Your task to perform on an android device: Open notification settings Image 0: 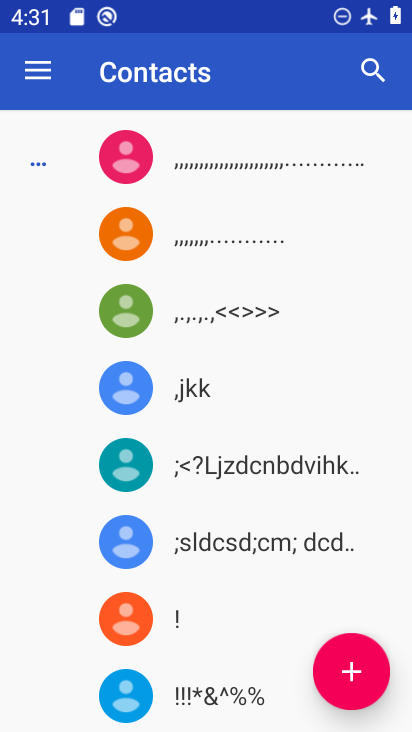
Step 0: press home button
Your task to perform on an android device: Open notification settings Image 1: 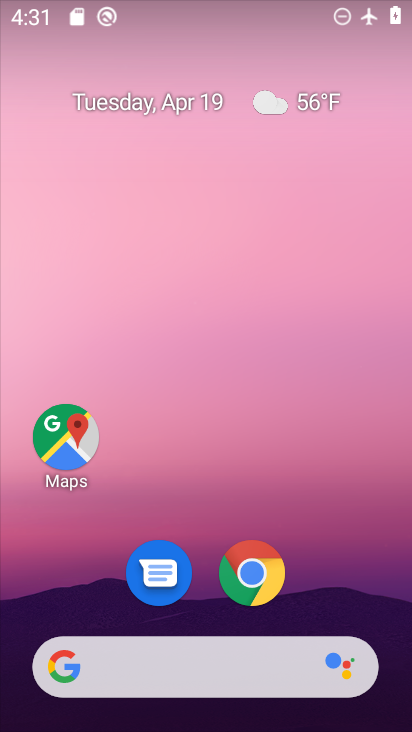
Step 1: drag from (348, 593) to (349, 4)
Your task to perform on an android device: Open notification settings Image 2: 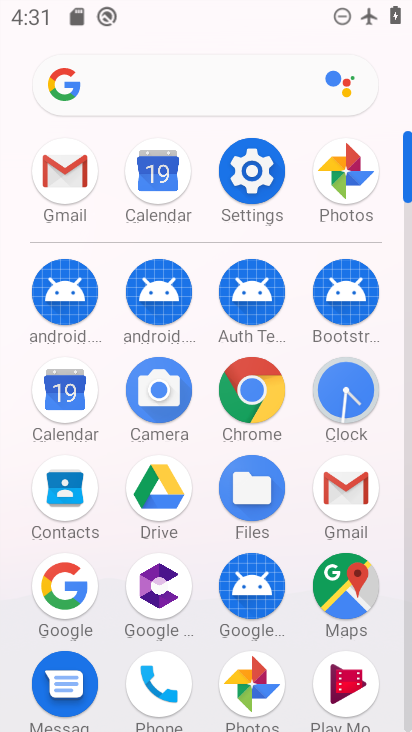
Step 2: click (248, 183)
Your task to perform on an android device: Open notification settings Image 3: 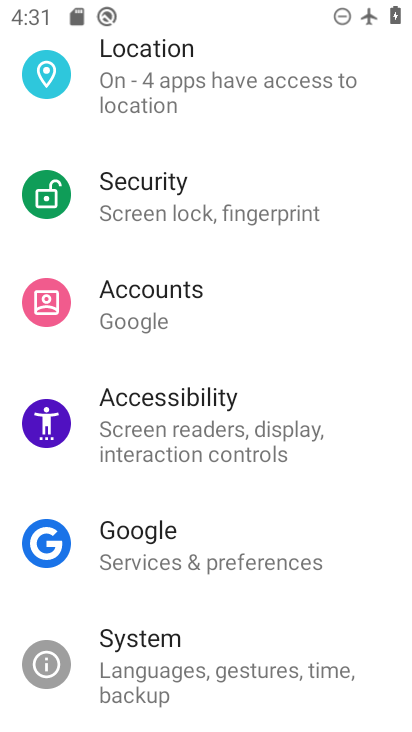
Step 3: drag from (279, 162) to (261, 531)
Your task to perform on an android device: Open notification settings Image 4: 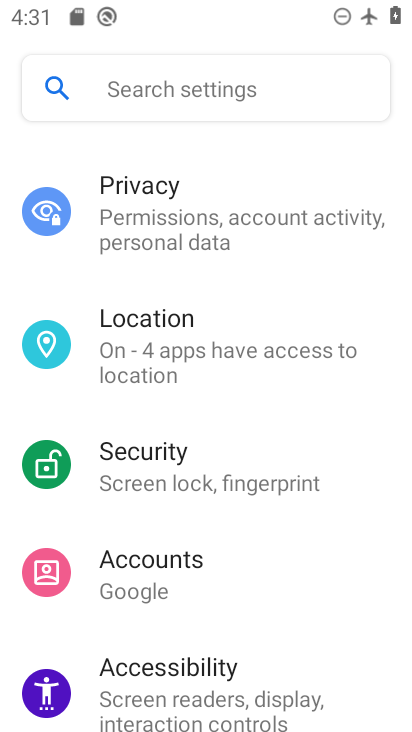
Step 4: drag from (300, 236) to (305, 606)
Your task to perform on an android device: Open notification settings Image 5: 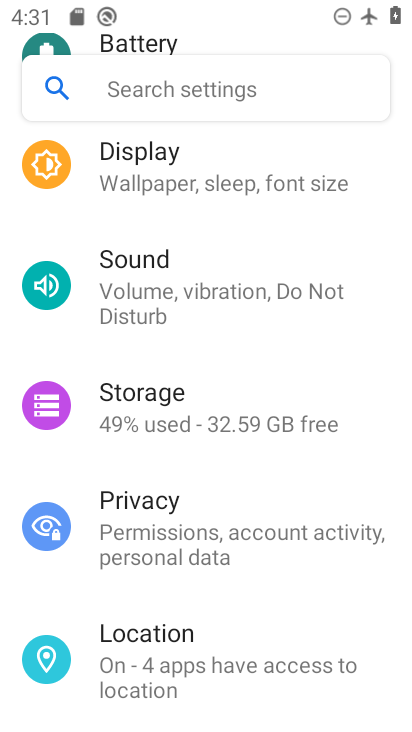
Step 5: drag from (321, 246) to (327, 565)
Your task to perform on an android device: Open notification settings Image 6: 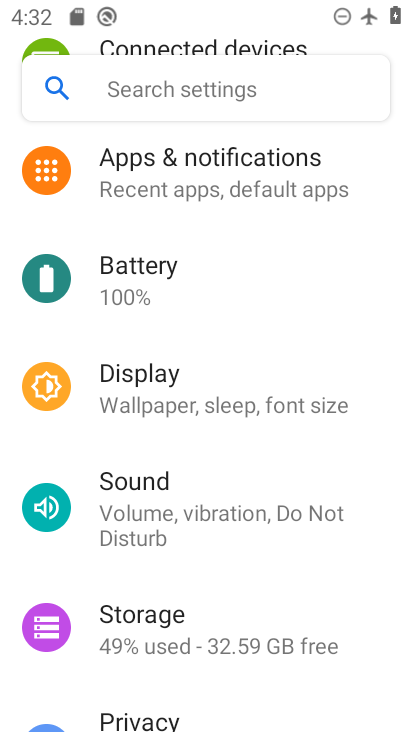
Step 6: click (203, 184)
Your task to perform on an android device: Open notification settings Image 7: 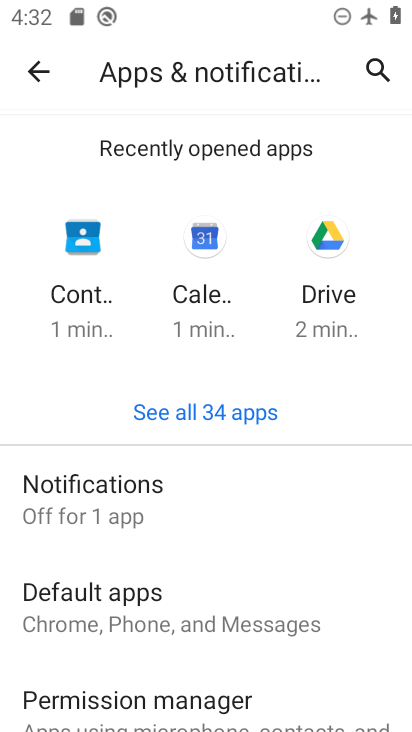
Step 7: task complete